Your task to perform on an android device: Go to internet settings Image 0: 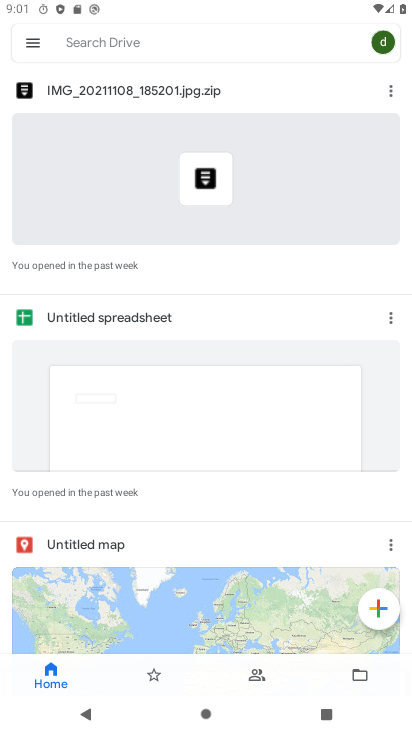
Step 0: press home button
Your task to perform on an android device: Go to internet settings Image 1: 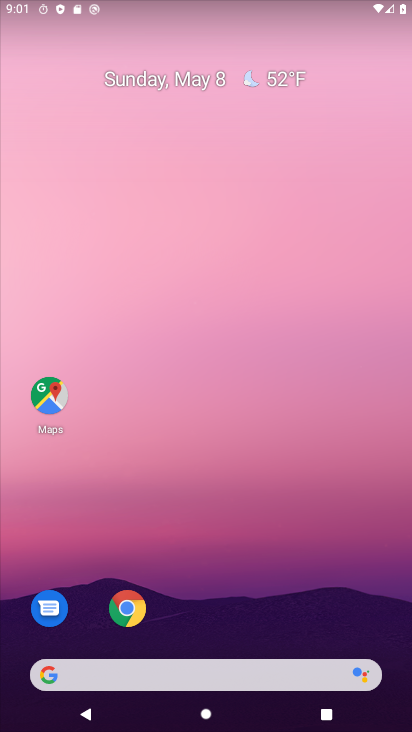
Step 1: drag from (331, 621) to (310, 12)
Your task to perform on an android device: Go to internet settings Image 2: 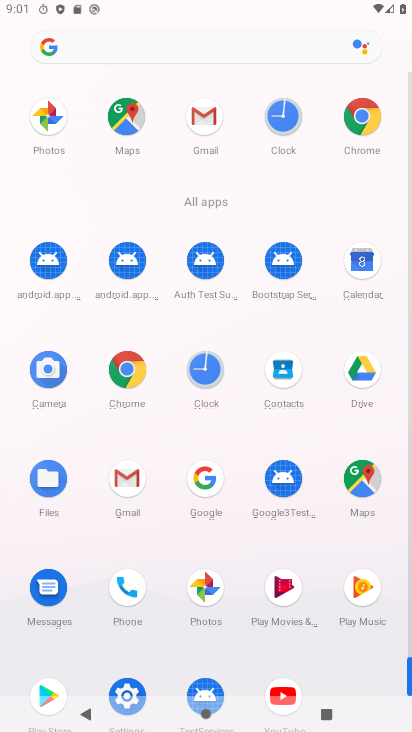
Step 2: drag from (314, 574) to (327, 243)
Your task to perform on an android device: Go to internet settings Image 3: 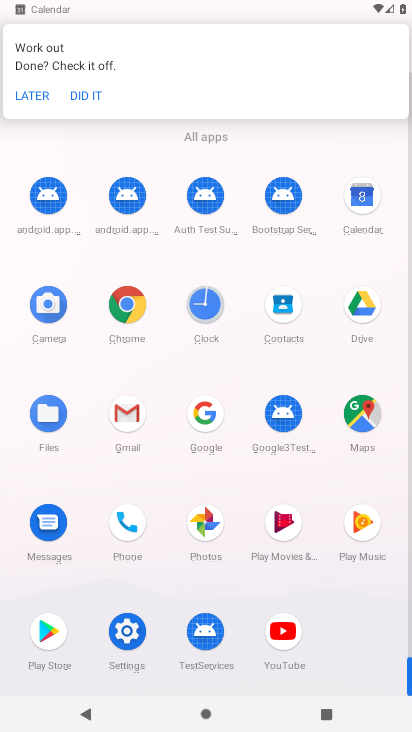
Step 3: click (131, 636)
Your task to perform on an android device: Go to internet settings Image 4: 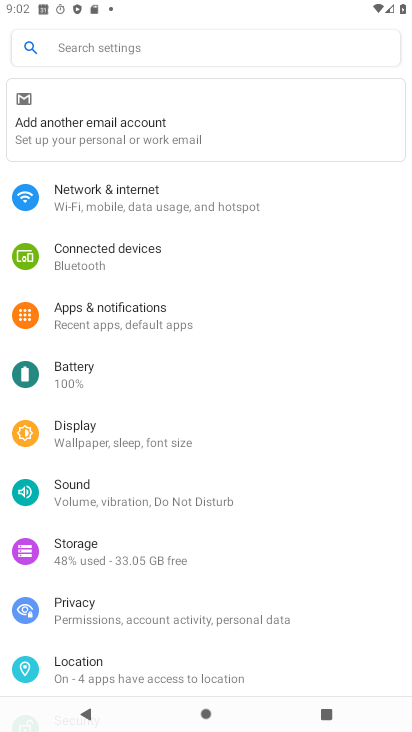
Step 4: click (181, 206)
Your task to perform on an android device: Go to internet settings Image 5: 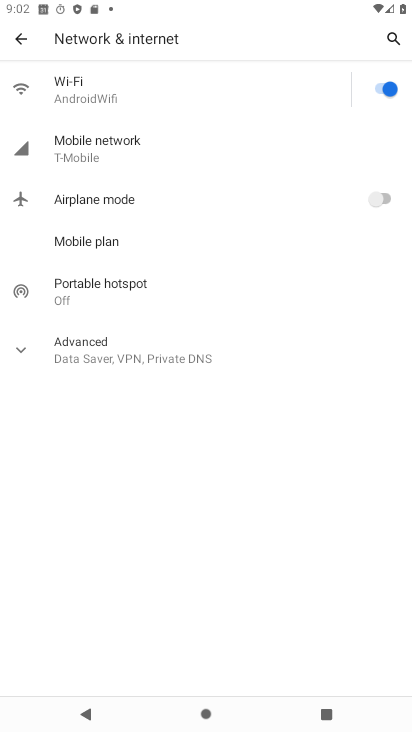
Step 5: click (145, 144)
Your task to perform on an android device: Go to internet settings Image 6: 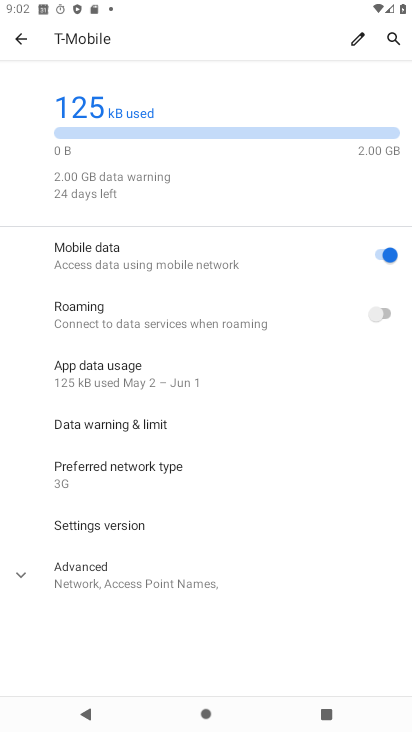
Step 6: task complete